Your task to perform on an android device: Go to calendar. Show me events next week Image 0: 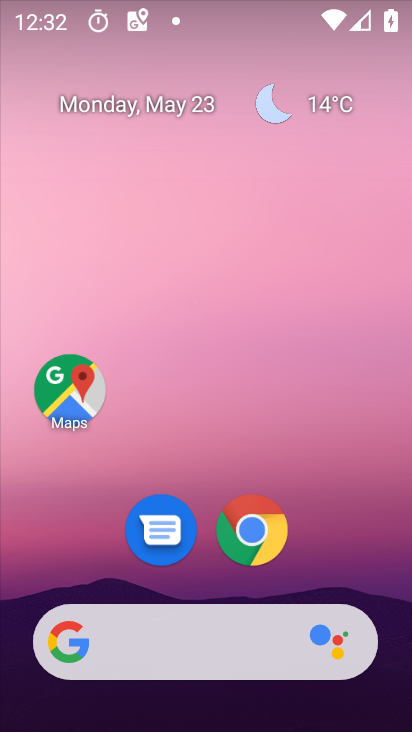
Step 0: drag from (399, 704) to (361, 281)
Your task to perform on an android device: Go to calendar. Show me events next week Image 1: 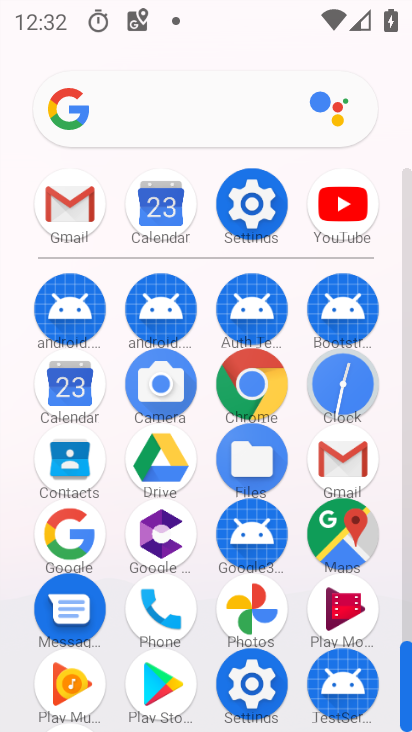
Step 1: click (56, 389)
Your task to perform on an android device: Go to calendar. Show me events next week Image 2: 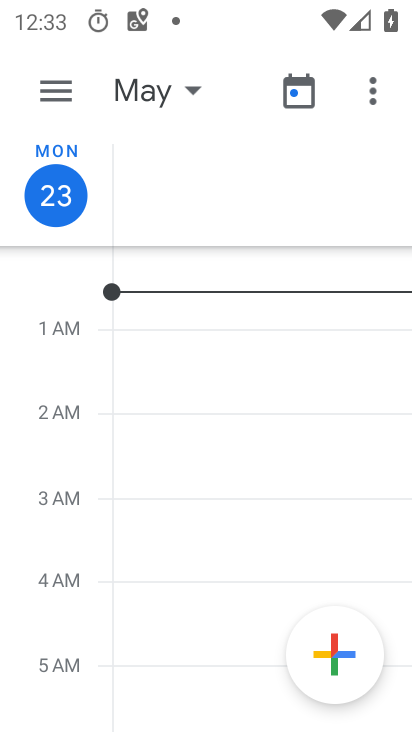
Step 2: click (372, 89)
Your task to perform on an android device: Go to calendar. Show me events next week Image 3: 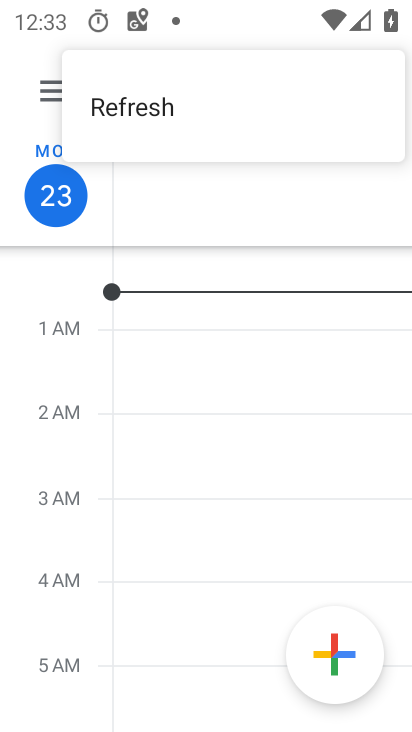
Step 3: click (27, 73)
Your task to perform on an android device: Go to calendar. Show me events next week Image 4: 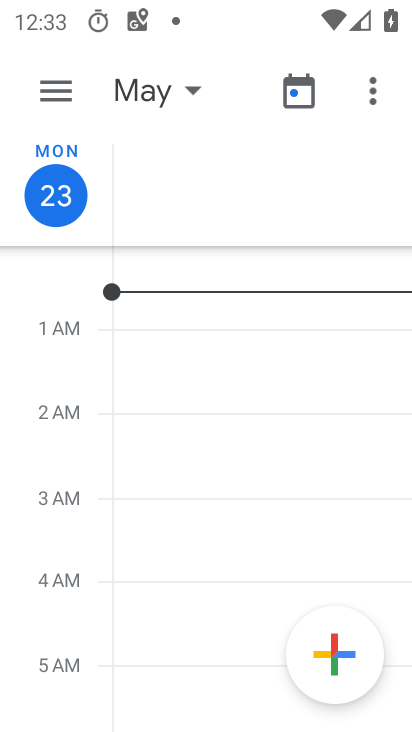
Step 4: click (195, 86)
Your task to perform on an android device: Go to calendar. Show me events next week Image 5: 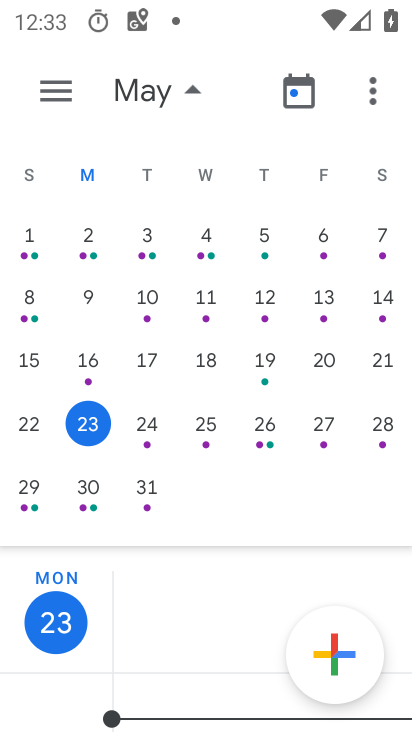
Step 5: click (86, 427)
Your task to perform on an android device: Go to calendar. Show me events next week Image 6: 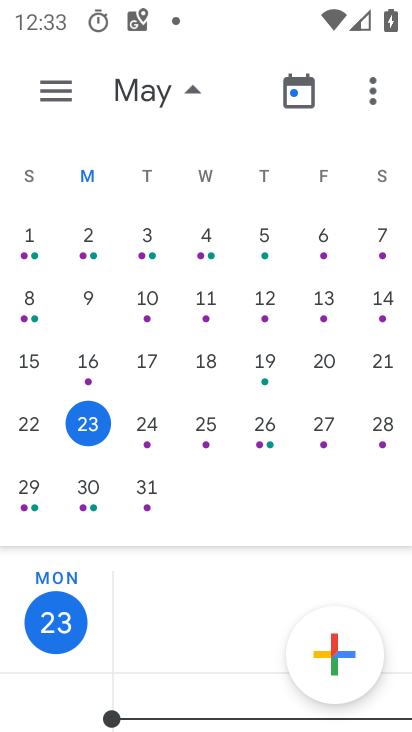
Step 6: click (60, 86)
Your task to perform on an android device: Go to calendar. Show me events next week Image 7: 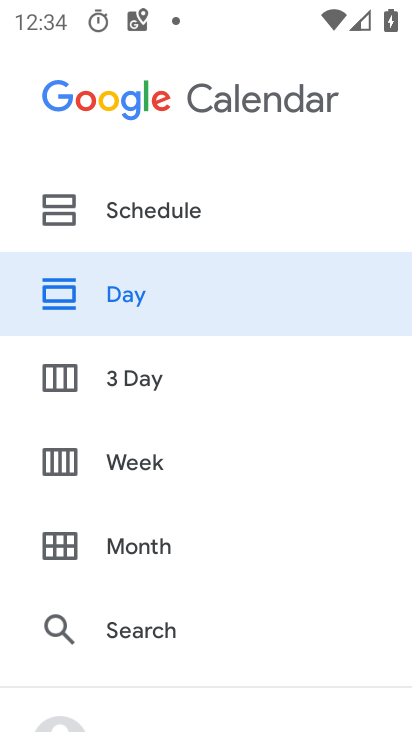
Step 7: drag from (308, 596) to (273, 328)
Your task to perform on an android device: Go to calendar. Show me events next week Image 8: 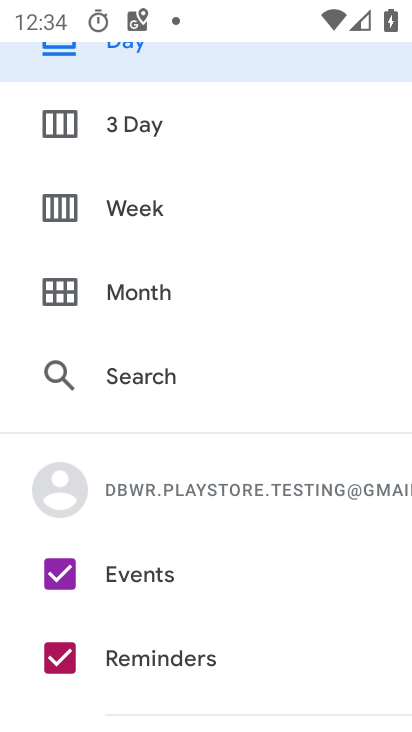
Step 8: click (64, 655)
Your task to perform on an android device: Go to calendar. Show me events next week Image 9: 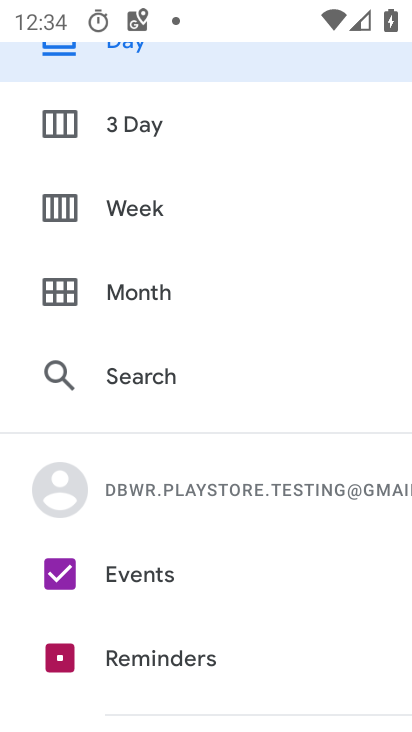
Step 9: drag from (275, 652) to (236, 377)
Your task to perform on an android device: Go to calendar. Show me events next week Image 10: 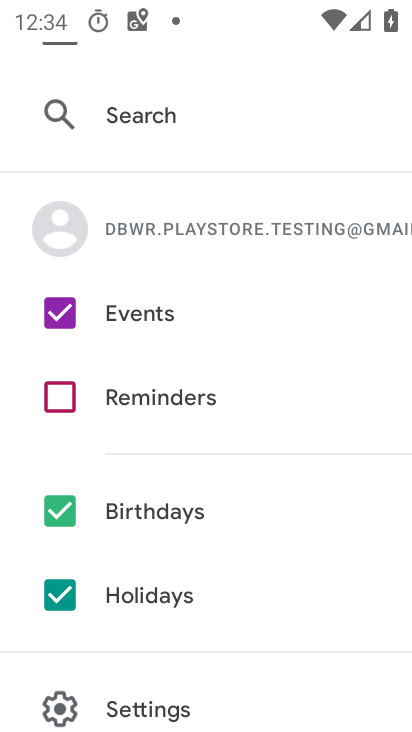
Step 10: click (64, 517)
Your task to perform on an android device: Go to calendar. Show me events next week Image 11: 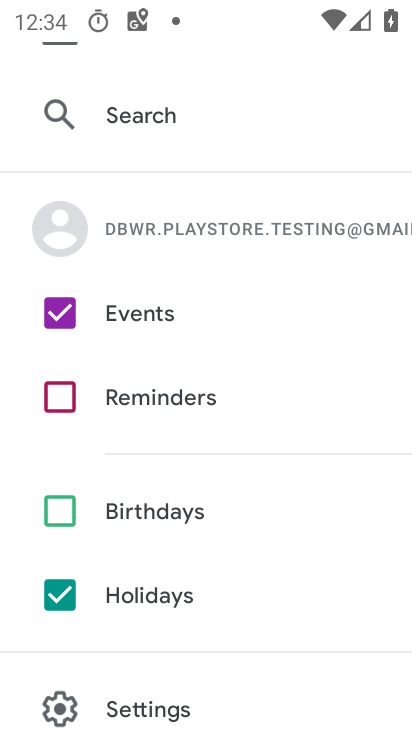
Step 11: click (63, 599)
Your task to perform on an android device: Go to calendar. Show me events next week Image 12: 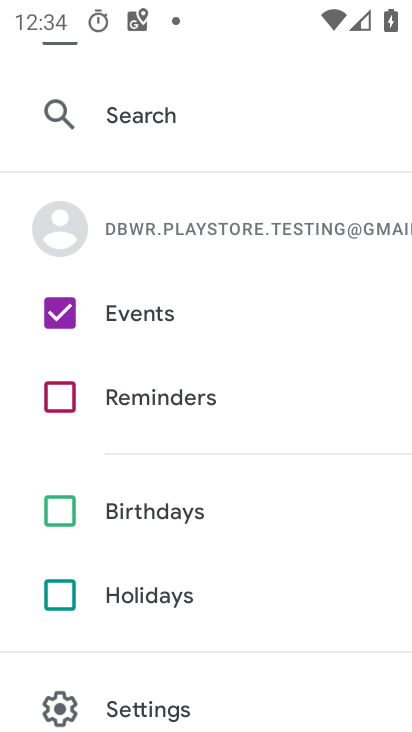
Step 12: drag from (237, 373) to (250, 629)
Your task to perform on an android device: Go to calendar. Show me events next week Image 13: 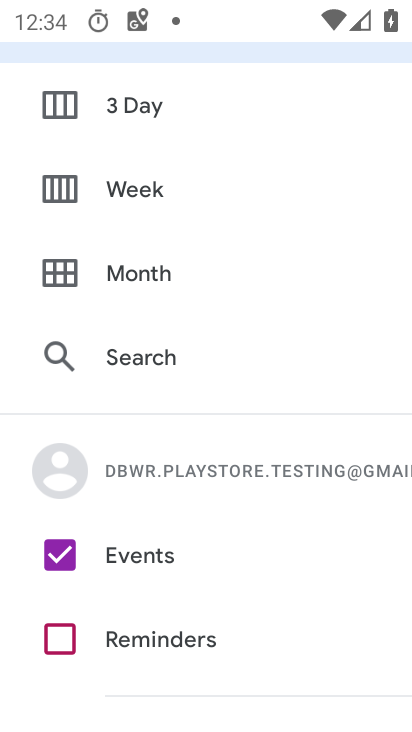
Step 13: drag from (267, 212) to (291, 493)
Your task to perform on an android device: Go to calendar. Show me events next week Image 14: 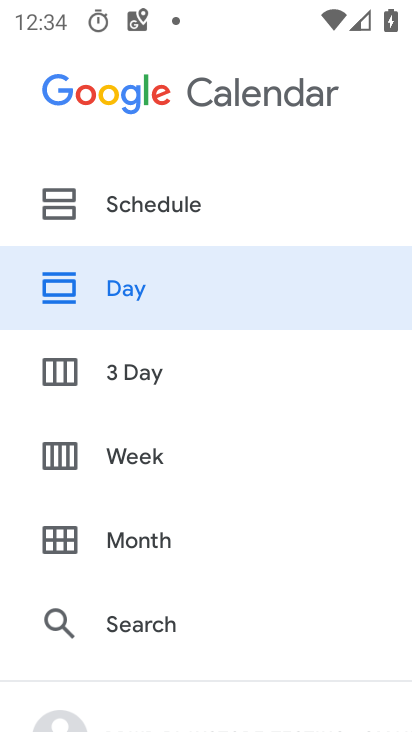
Step 14: click (160, 200)
Your task to perform on an android device: Go to calendar. Show me events next week Image 15: 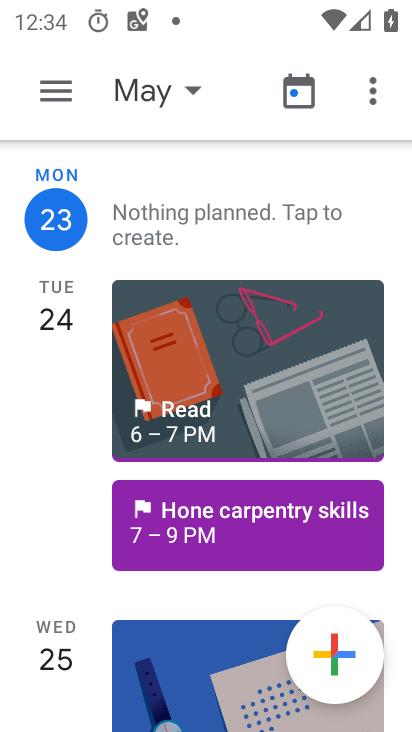
Step 15: task complete